Your task to perform on an android device: turn vacation reply on in the gmail app Image 0: 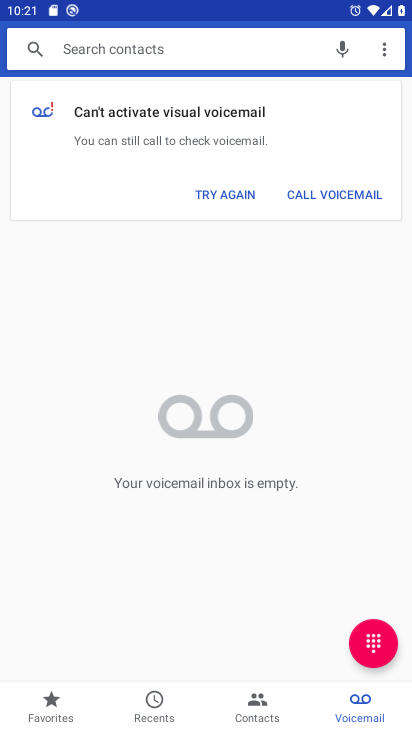
Step 0: drag from (222, 667) to (315, 373)
Your task to perform on an android device: turn vacation reply on in the gmail app Image 1: 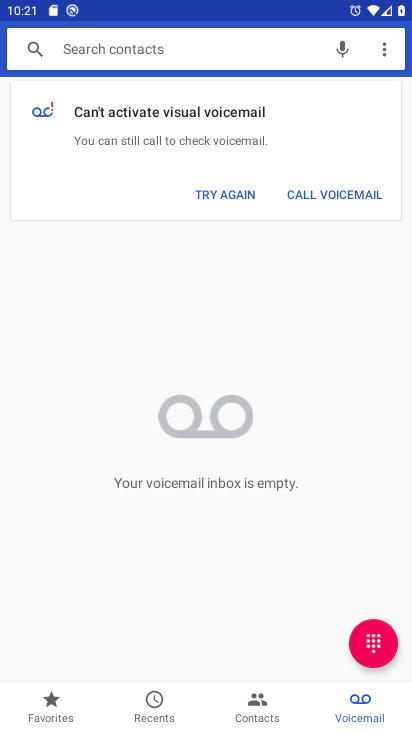
Step 1: press home button
Your task to perform on an android device: turn vacation reply on in the gmail app Image 2: 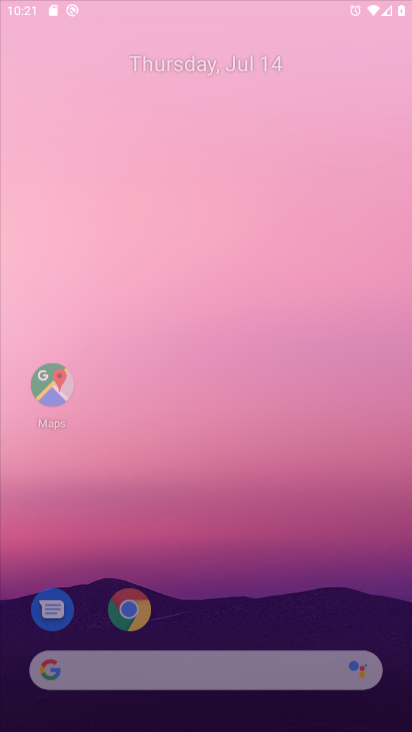
Step 2: drag from (196, 585) to (204, 154)
Your task to perform on an android device: turn vacation reply on in the gmail app Image 3: 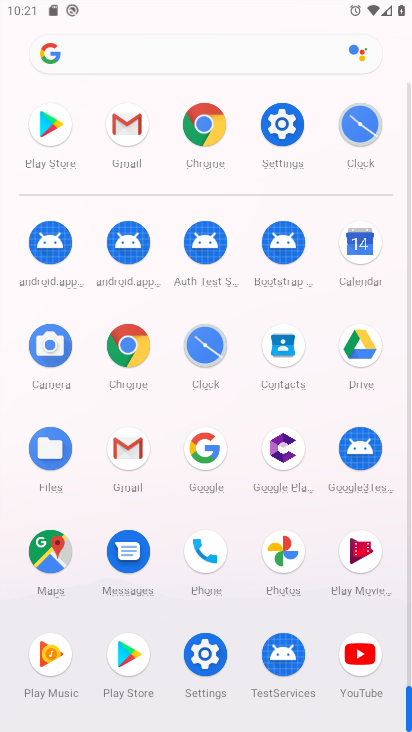
Step 3: click (135, 449)
Your task to perform on an android device: turn vacation reply on in the gmail app Image 4: 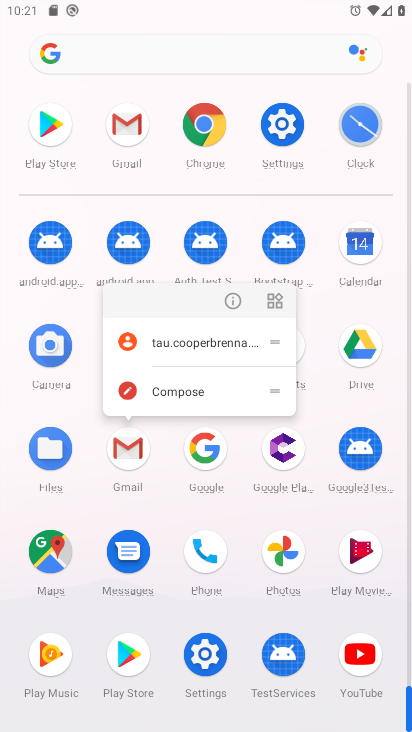
Step 4: click (231, 301)
Your task to perform on an android device: turn vacation reply on in the gmail app Image 5: 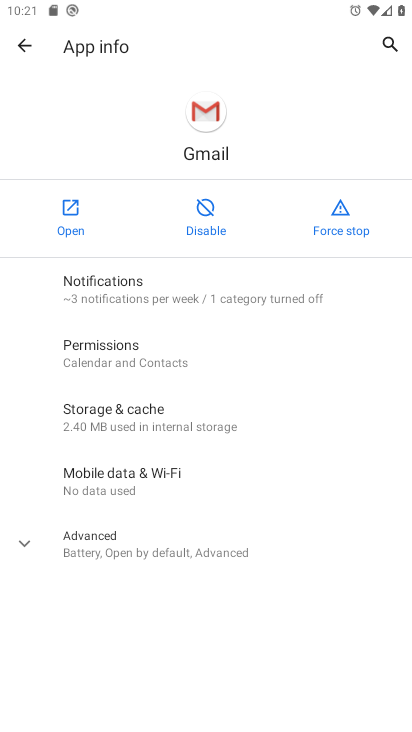
Step 5: click (80, 226)
Your task to perform on an android device: turn vacation reply on in the gmail app Image 6: 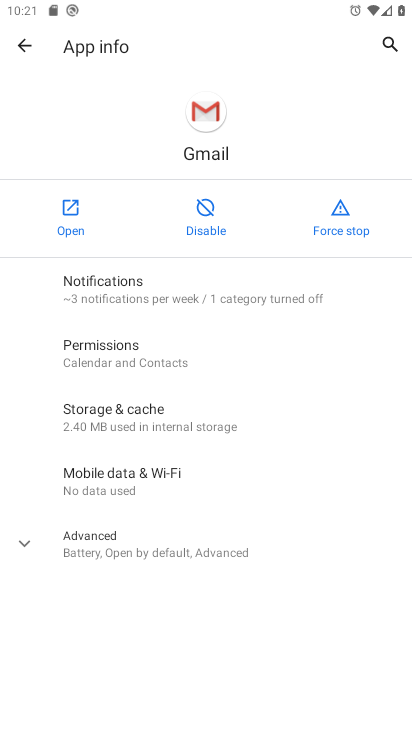
Step 6: click (80, 226)
Your task to perform on an android device: turn vacation reply on in the gmail app Image 7: 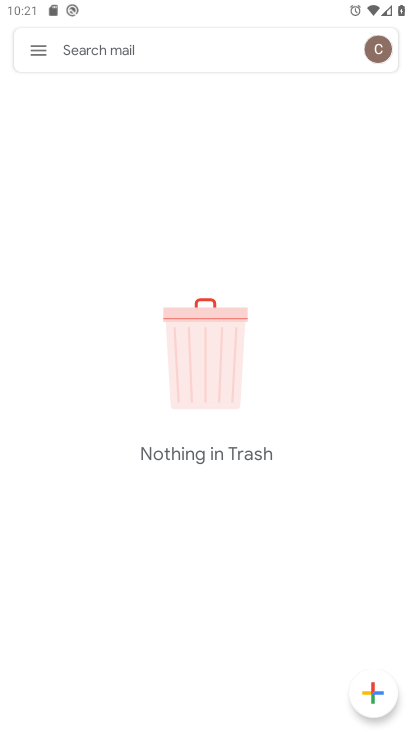
Step 7: drag from (228, 568) to (236, 394)
Your task to perform on an android device: turn vacation reply on in the gmail app Image 8: 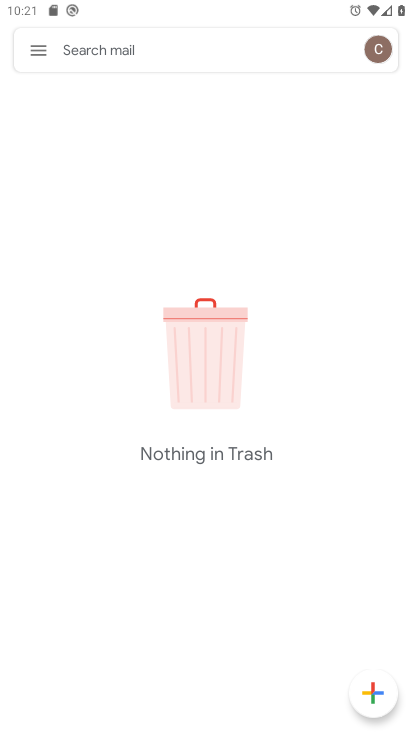
Step 8: click (42, 51)
Your task to perform on an android device: turn vacation reply on in the gmail app Image 9: 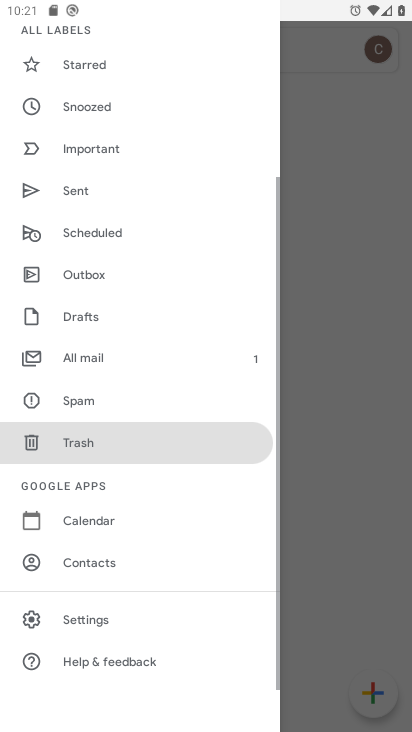
Step 9: drag from (152, 333) to (183, 136)
Your task to perform on an android device: turn vacation reply on in the gmail app Image 10: 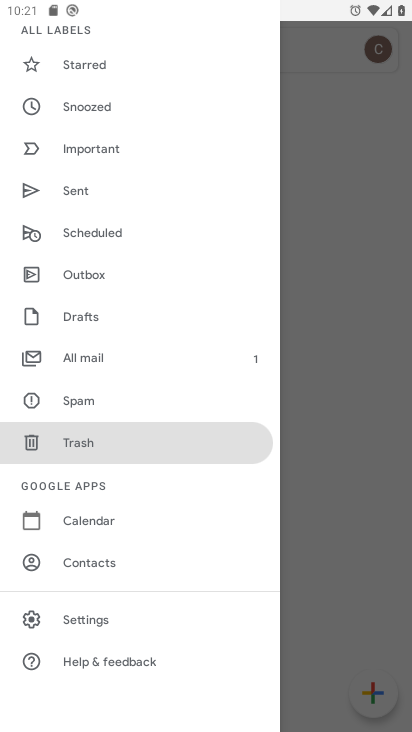
Step 10: click (87, 630)
Your task to perform on an android device: turn vacation reply on in the gmail app Image 11: 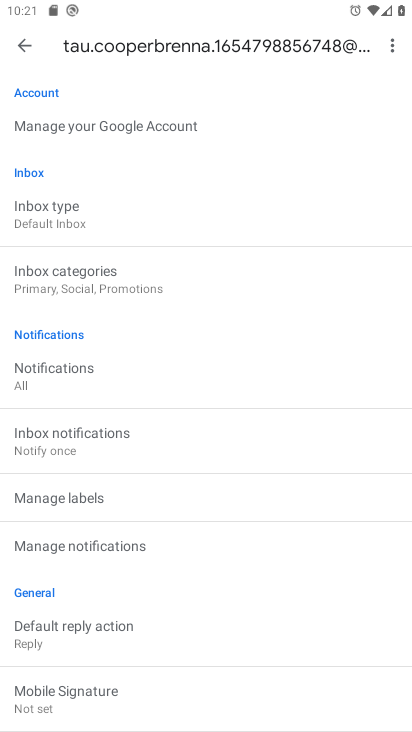
Step 11: drag from (200, 595) to (290, 197)
Your task to perform on an android device: turn vacation reply on in the gmail app Image 12: 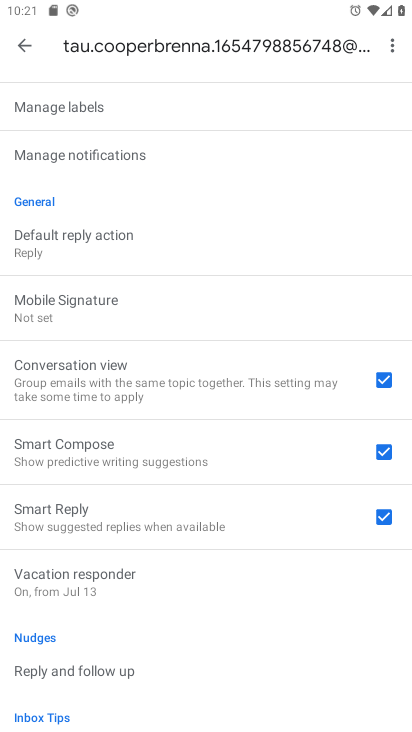
Step 12: click (98, 579)
Your task to perform on an android device: turn vacation reply on in the gmail app Image 13: 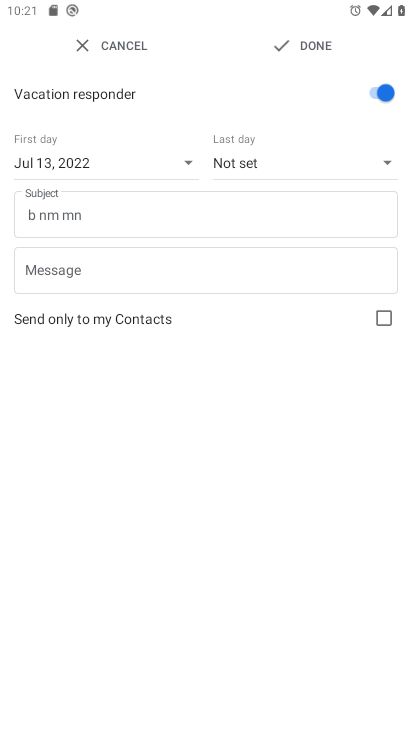
Step 13: click (276, 47)
Your task to perform on an android device: turn vacation reply on in the gmail app Image 14: 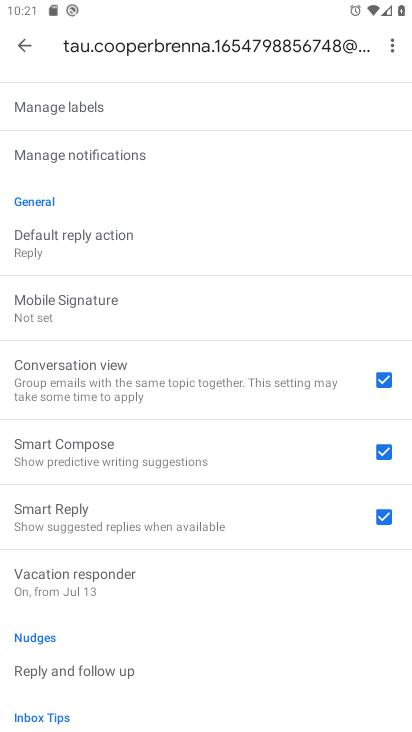
Step 14: drag from (208, 565) to (241, 140)
Your task to perform on an android device: turn vacation reply on in the gmail app Image 15: 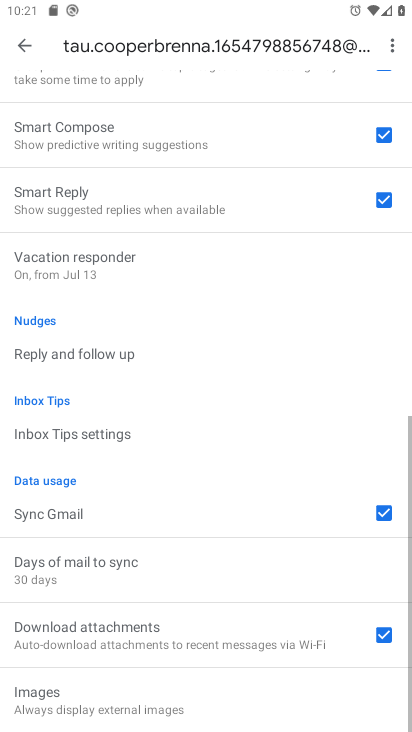
Step 15: drag from (205, 218) to (220, 552)
Your task to perform on an android device: turn vacation reply on in the gmail app Image 16: 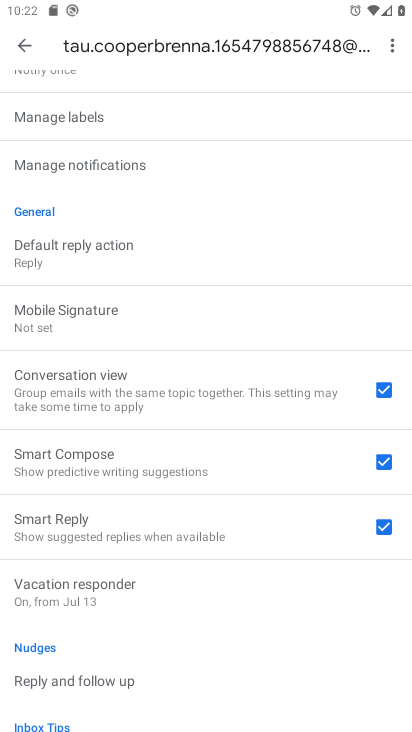
Step 16: click (84, 597)
Your task to perform on an android device: turn vacation reply on in the gmail app Image 17: 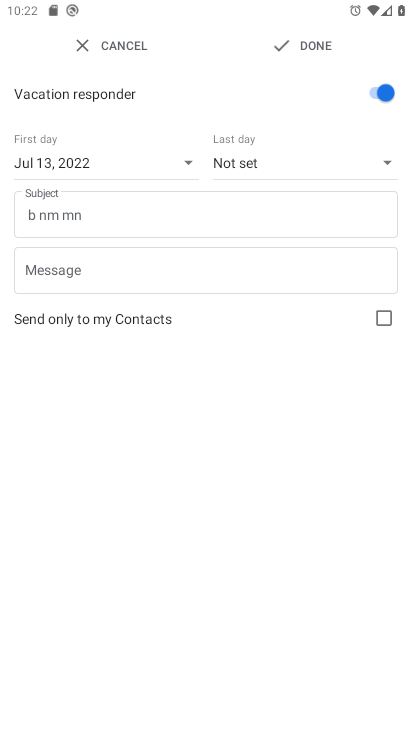
Step 17: task complete